Your task to perform on an android device: turn smart compose on in the gmail app Image 0: 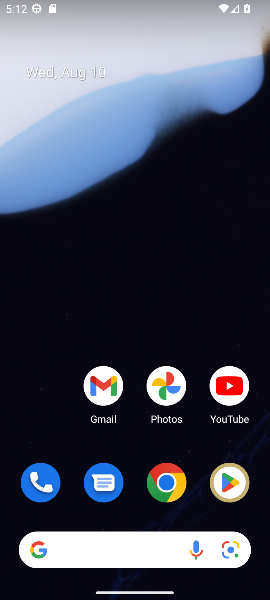
Step 0: drag from (48, 426) to (85, 59)
Your task to perform on an android device: turn smart compose on in the gmail app Image 1: 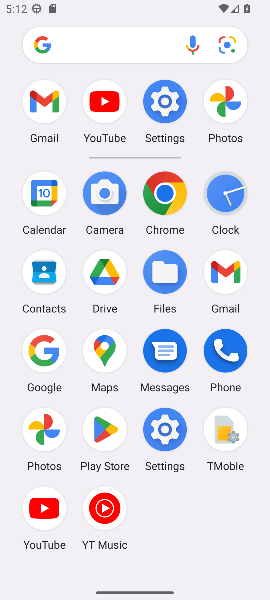
Step 1: click (230, 269)
Your task to perform on an android device: turn smart compose on in the gmail app Image 2: 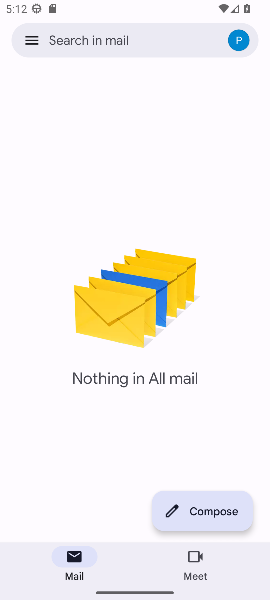
Step 2: click (33, 43)
Your task to perform on an android device: turn smart compose on in the gmail app Image 3: 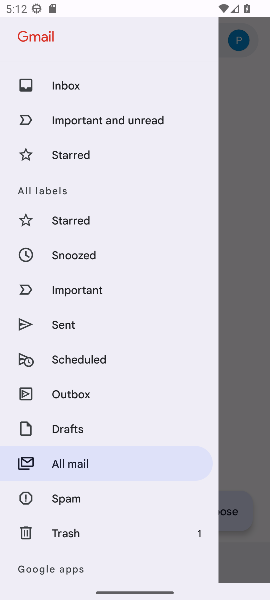
Step 3: drag from (135, 393) to (153, 99)
Your task to perform on an android device: turn smart compose on in the gmail app Image 4: 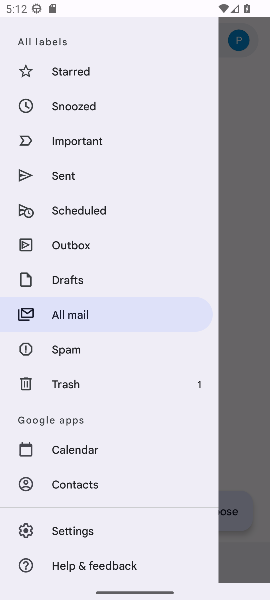
Step 4: click (87, 523)
Your task to perform on an android device: turn smart compose on in the gmail app Image 5: 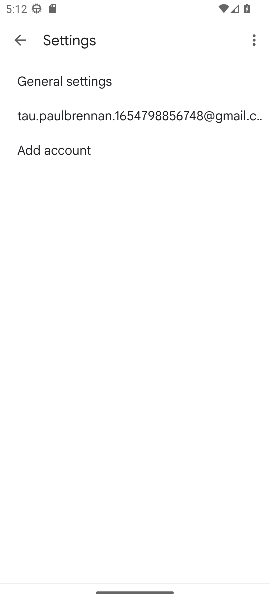
Step 5: click (183, 113)
Your task to perform on an android device: turn smart compose on in the gmail app Image 6: 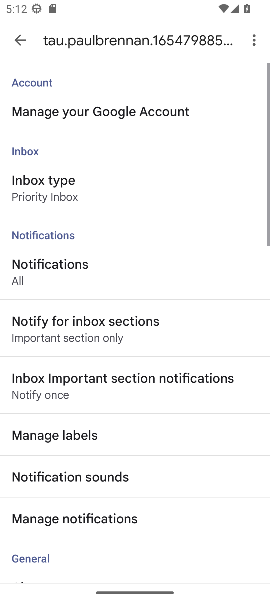
Step 6: task complete